Your task to perform on an android device: delete location history Image 0: 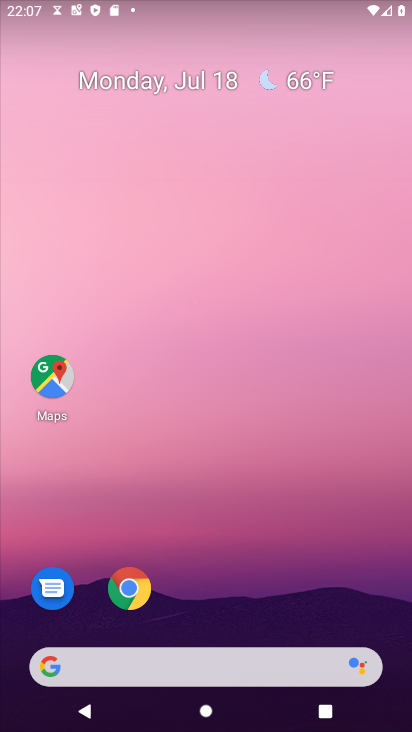
Step 0: click (51, 380)
Your task to perform on an android device: delete location history Image 1: 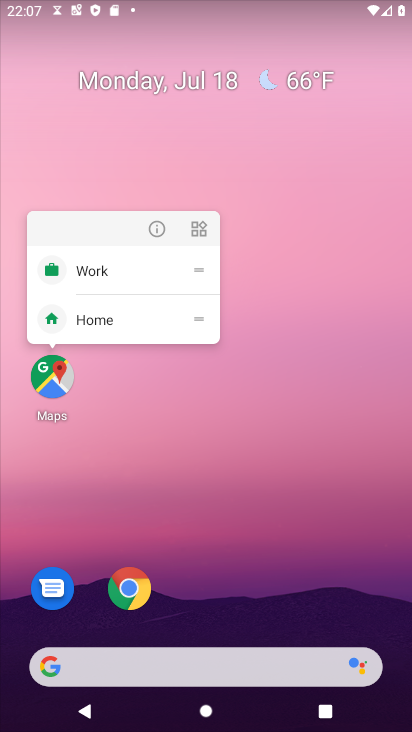
Step 1: click (56, 387)
Your task to perform on an android device: delete location history Image 2: 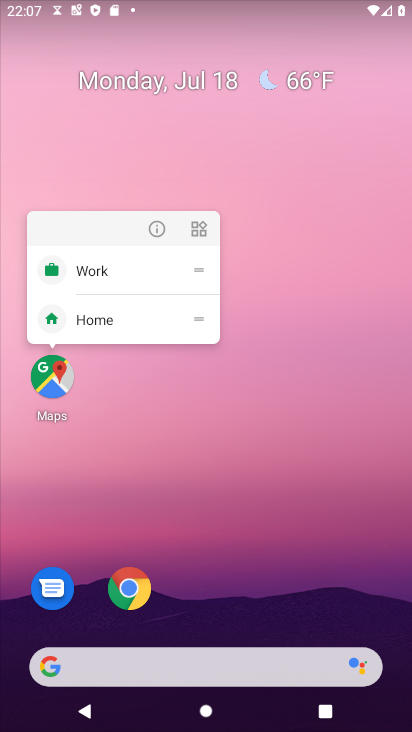
Step 2: click (51, 381)
Your task to perform on an android device: delete location history Image 3: 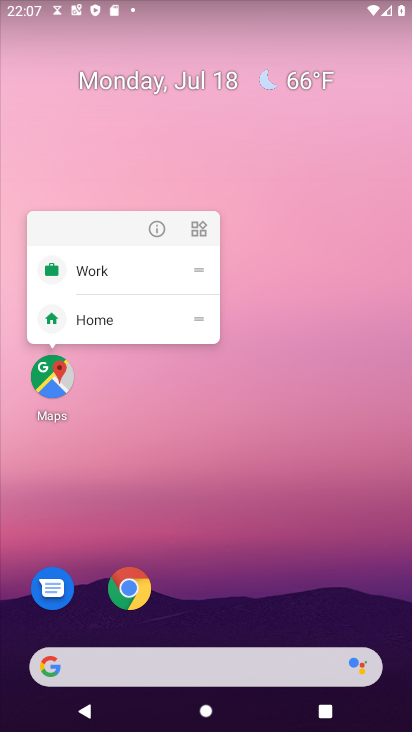
Step 3: click (53, 374)
Your task to perform on an android device: delete location history Image 4: 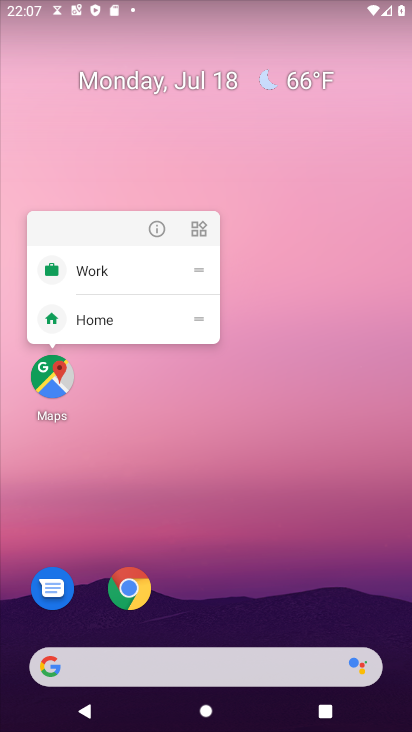
Step 4: click (53, 380)
Your task to perform on an android device: delete location history Image 5: 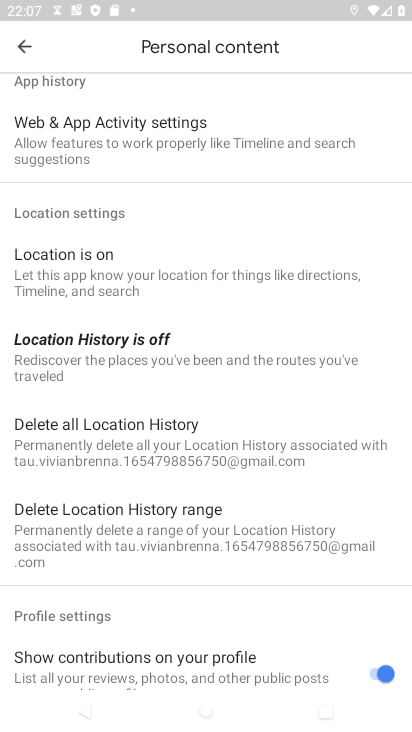
Step 5: click (139, 434)
Your task to perform on an android device: delete location history Image 6: 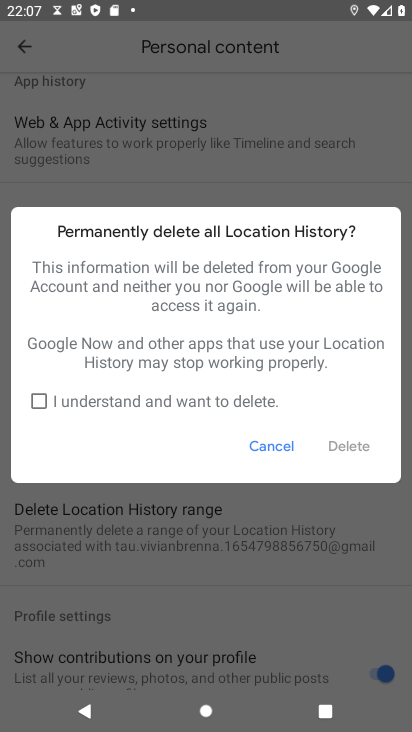
Step 6: click (39, 398)
Your task to perform on an android device: delete location history Image 7: 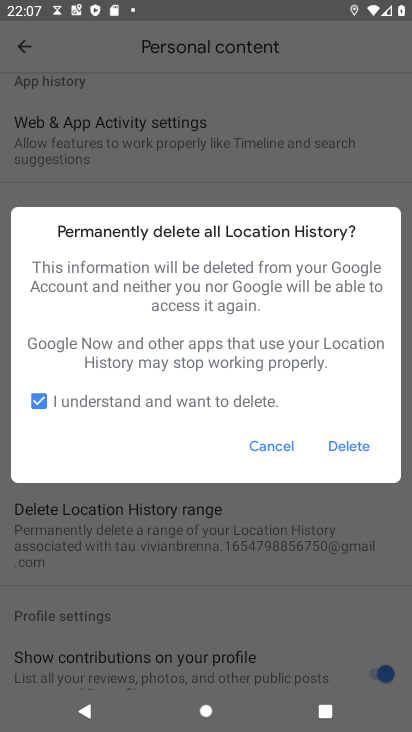
Step 7: click (346, 445)
Your task to perform on an android device: delete location history Image 8: 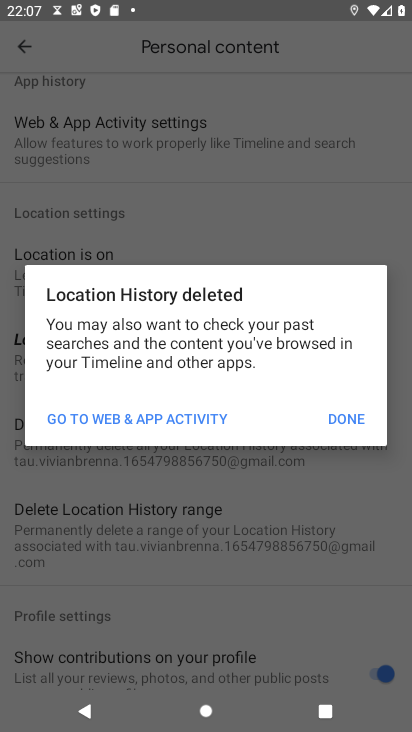
Step 8: click (354, 418)
Your task to perform on an android device: delete location history Image 9: 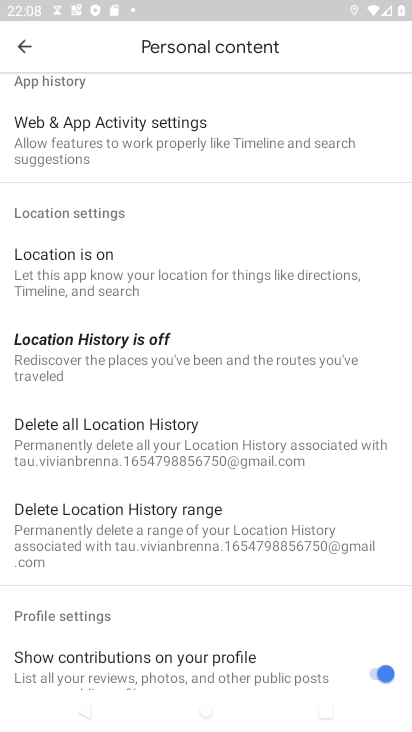
Step 9: task complete